Your task to perform on an android device: Open accessibility settings Image 0: 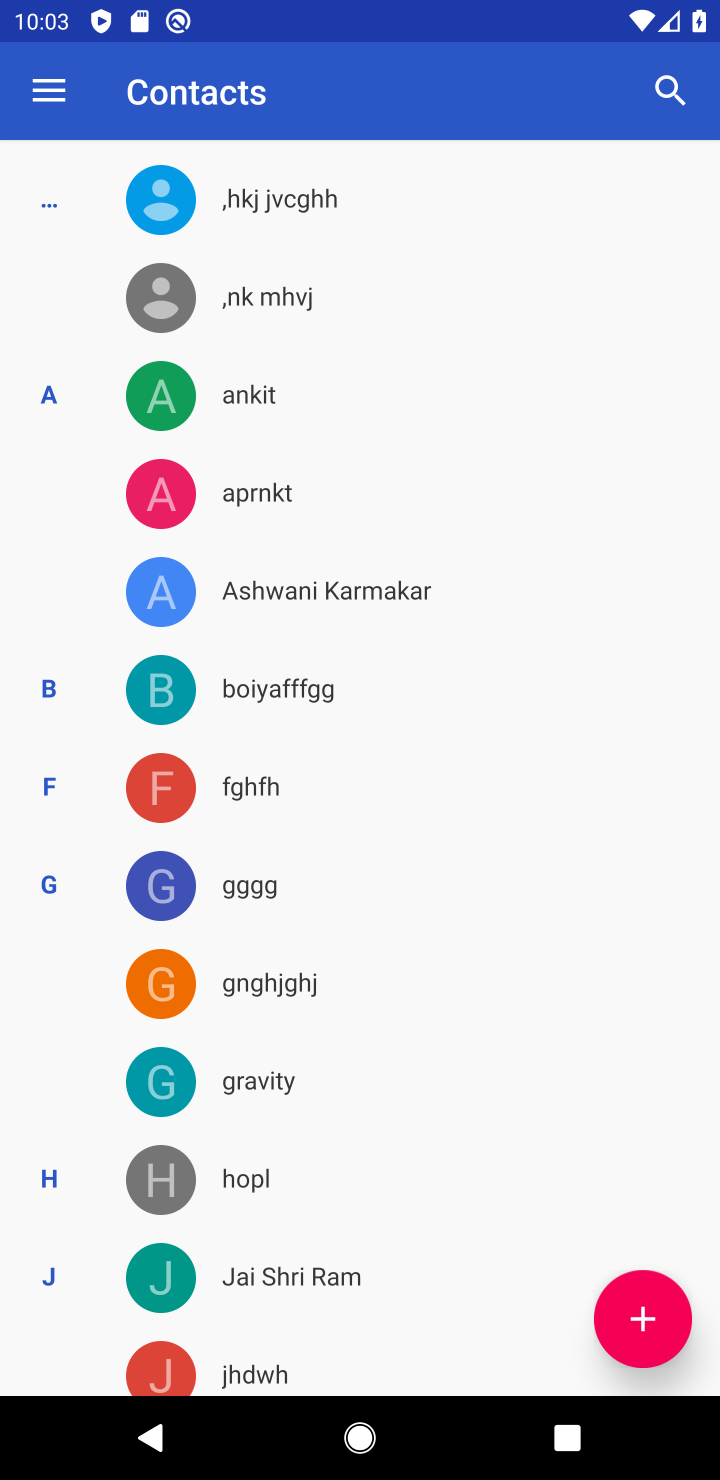
Step 0: press home button
Your task to perform on an android device: Open accessibility settings Image 1: 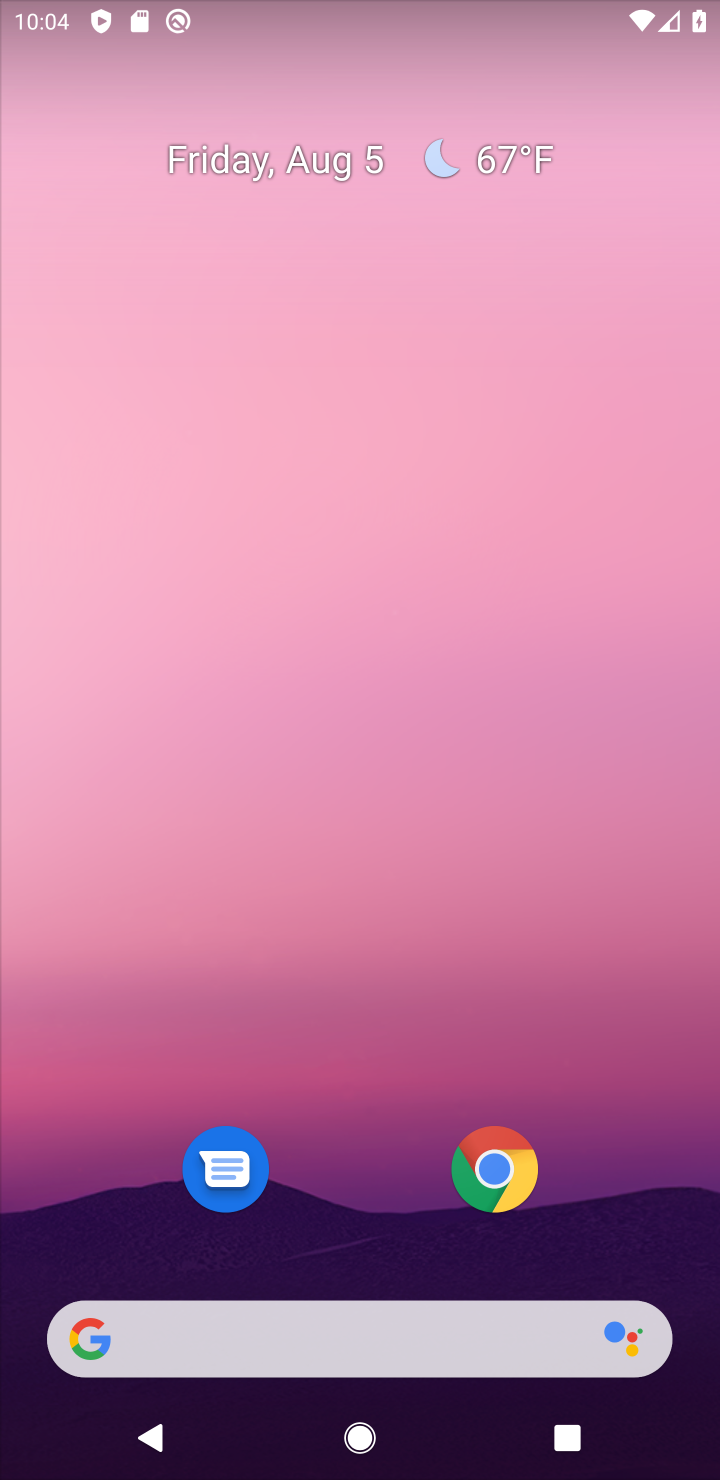
Step 1: drag from (626, 1024) to (606, 649)
Your task to perform on an android device: Open accessibility settings Image 2: 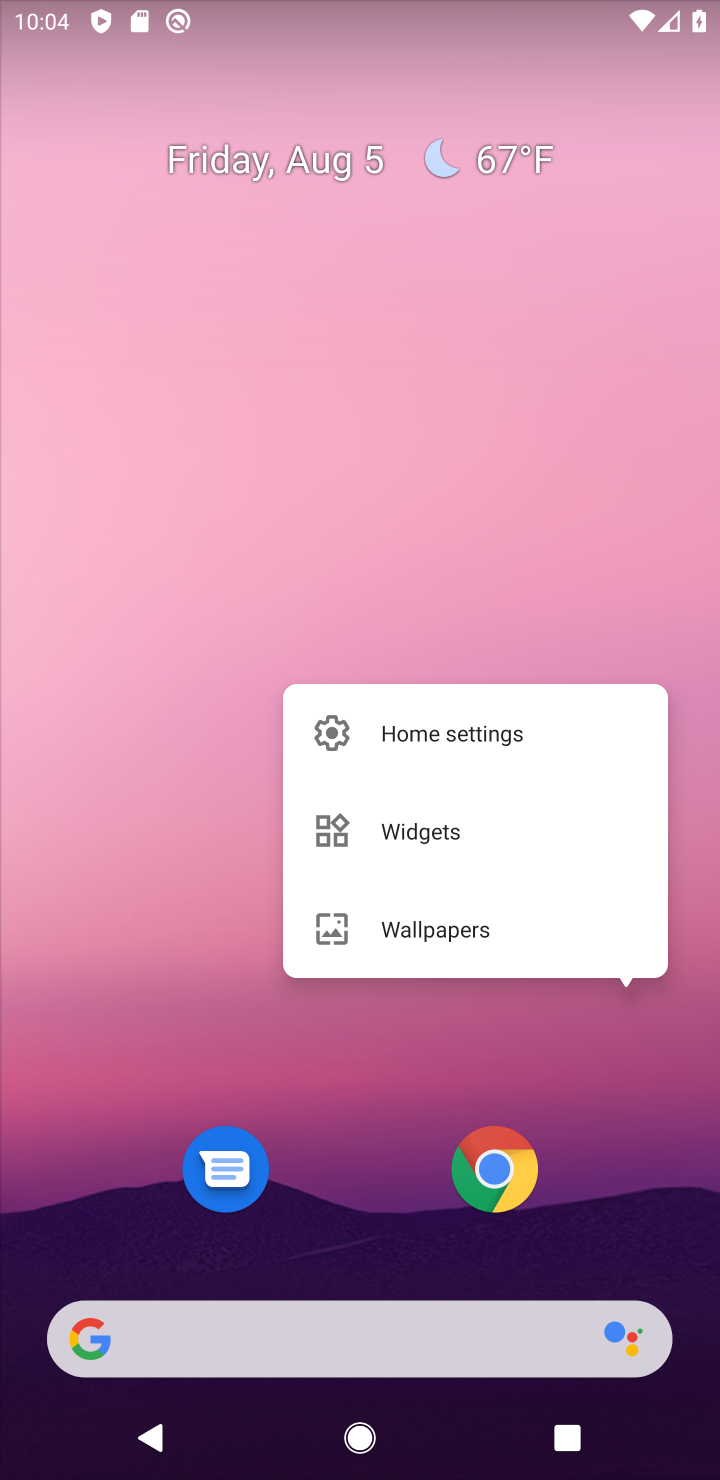
Step 2: drag from (671, 1251) to (567, 398)
Your task to perform on an android device: Open accessibility settings Image 3: 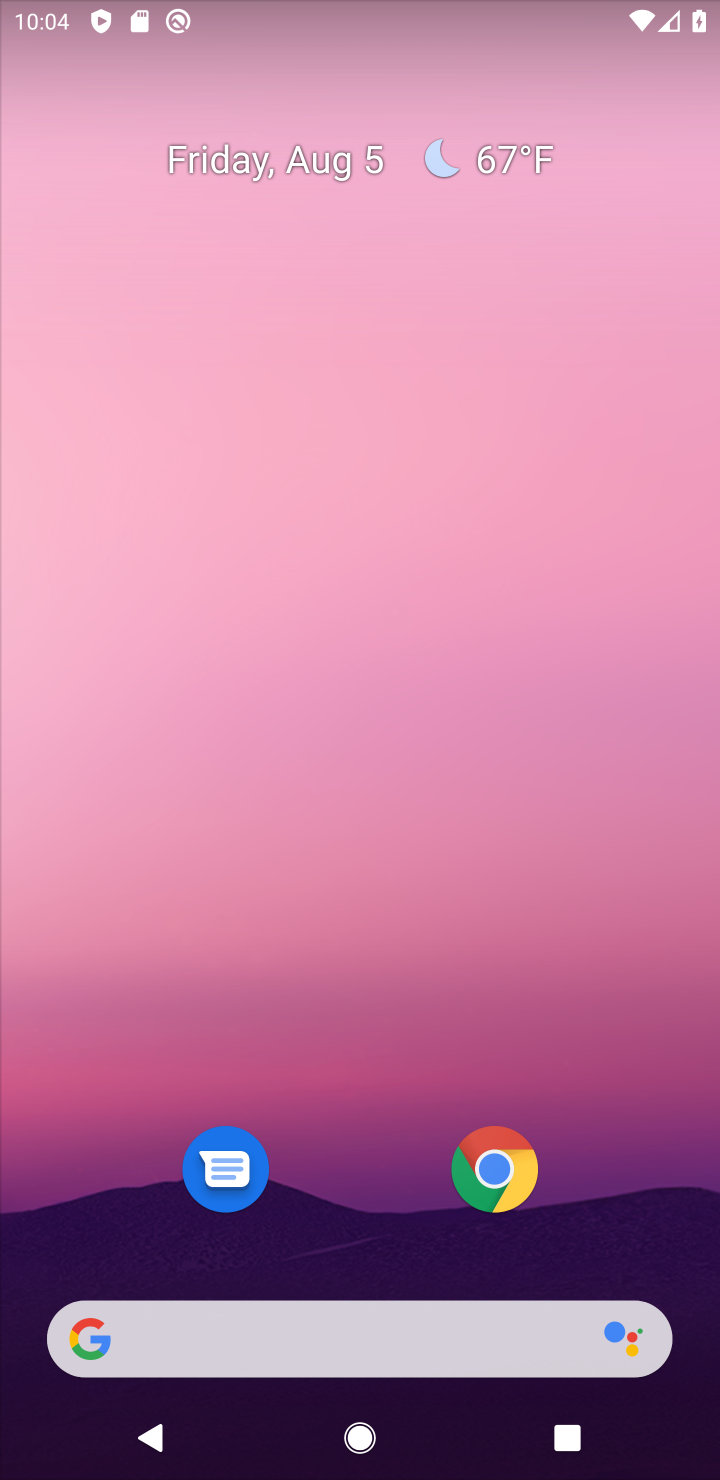
Step 3: drag from (645, 1210) to (619, 367)
Your task to perform on an android device: Open accessibility settings Image 4: 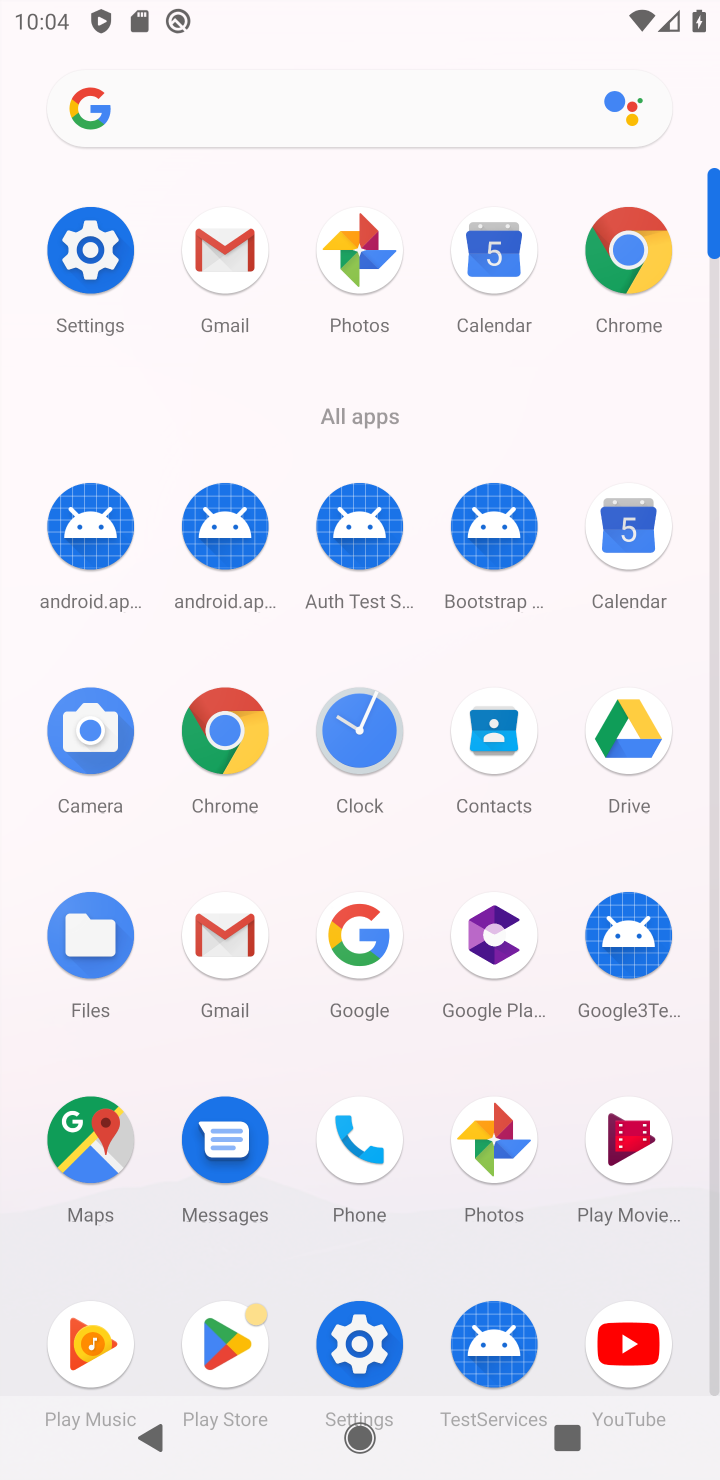
Step 4: click (361, 1345)
Your task to perform on an android device: Open accessibility settings Image 5: 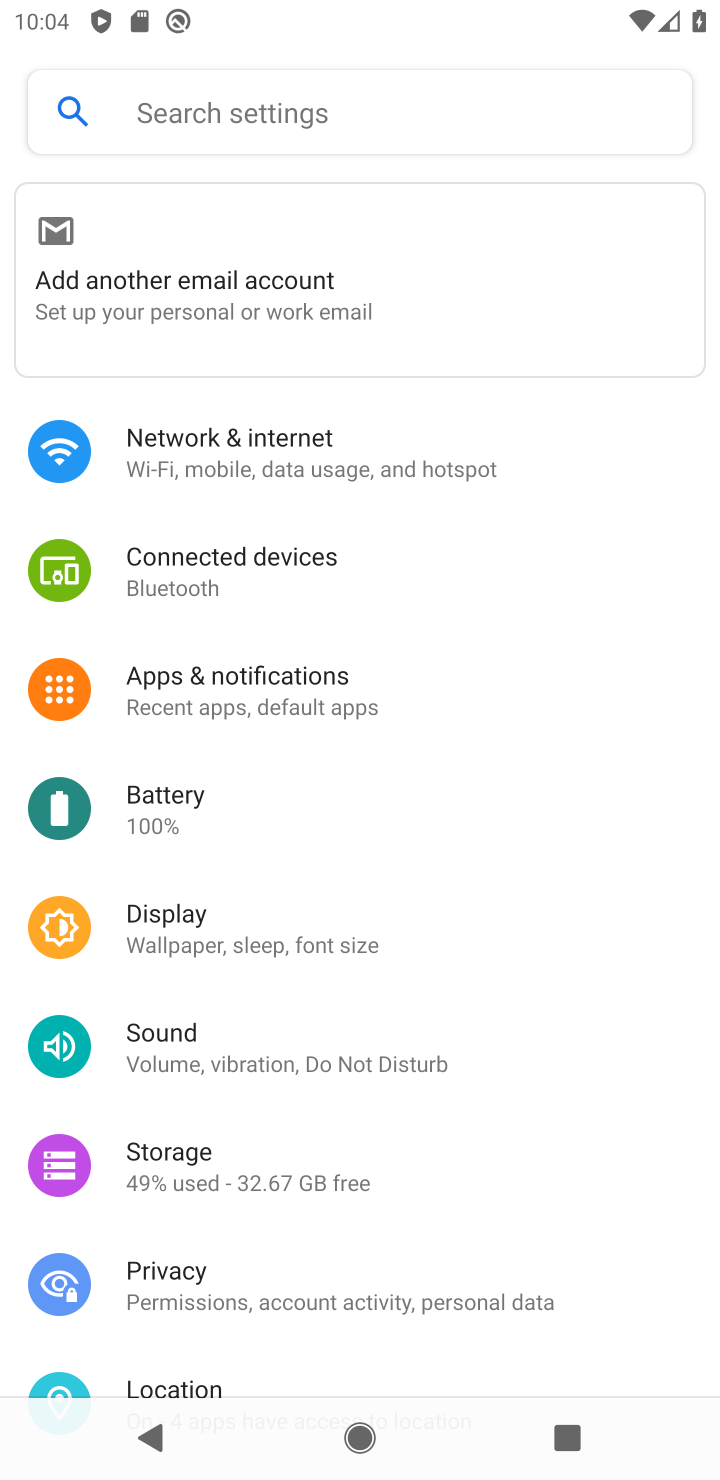
Step 5: drag from (593, 1302) to (555, 729)
Your task to perform on an android device: Open accessibility settings Image 6: 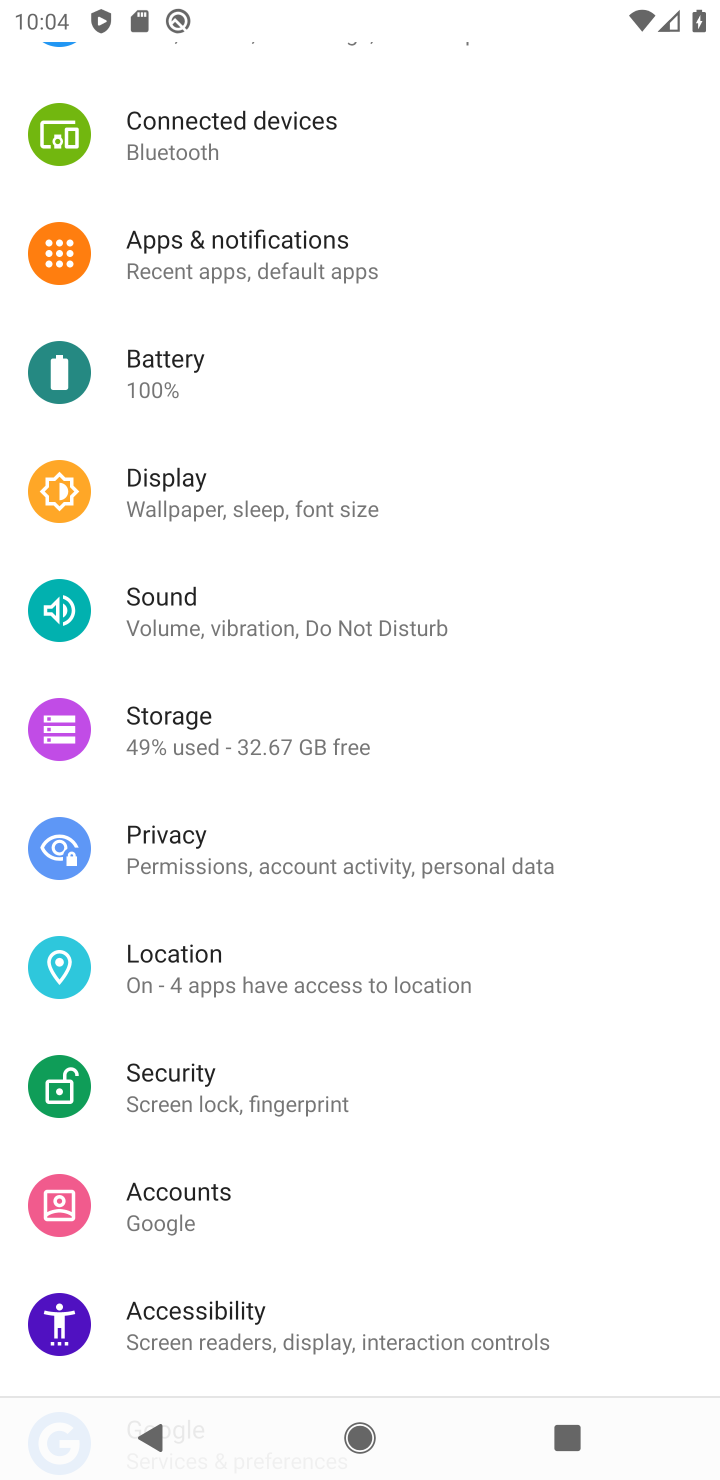
Step 6: drag from (472, 1285) to (516, 644)
Your task to perform on an android device: Open accessibility settings Image 7: 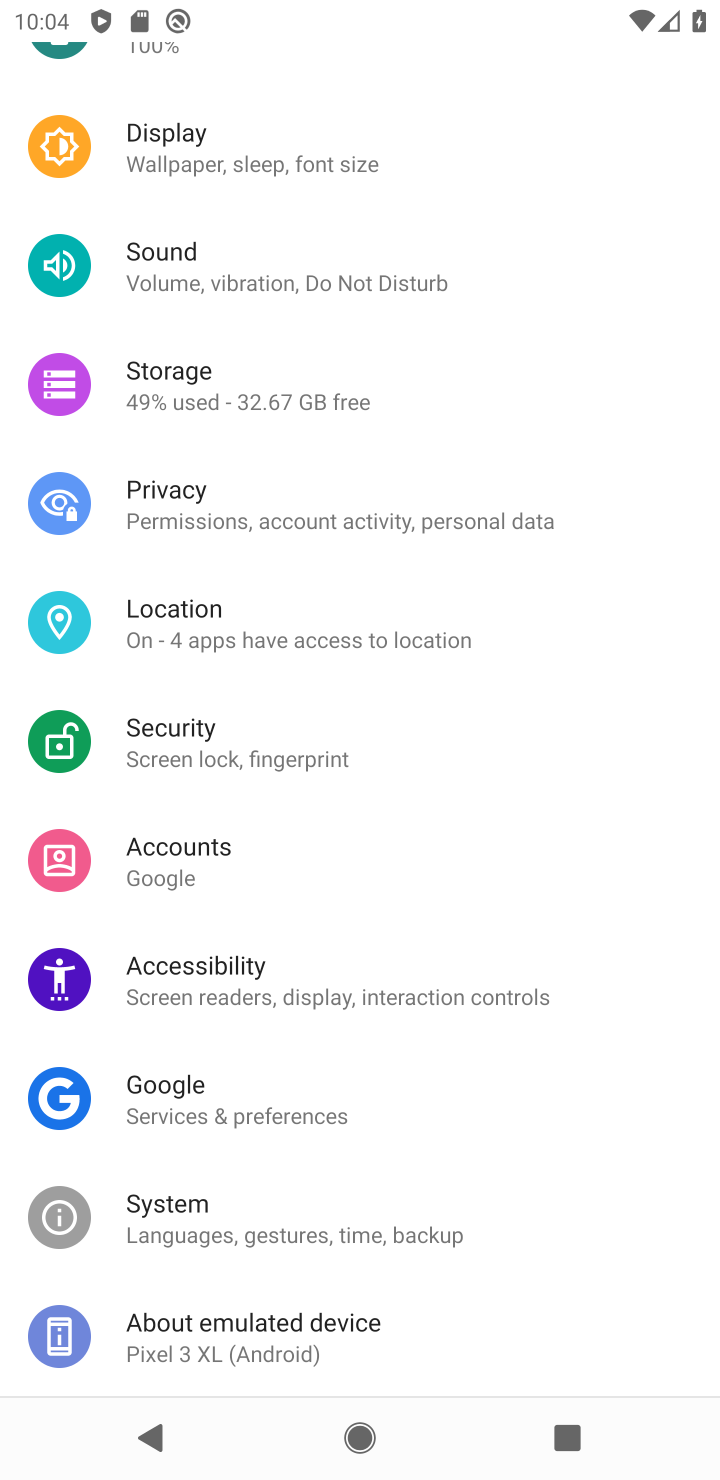
Step 7: click (179, 964)
Your task to perform on an android device: Open accessibility settings Image 8: 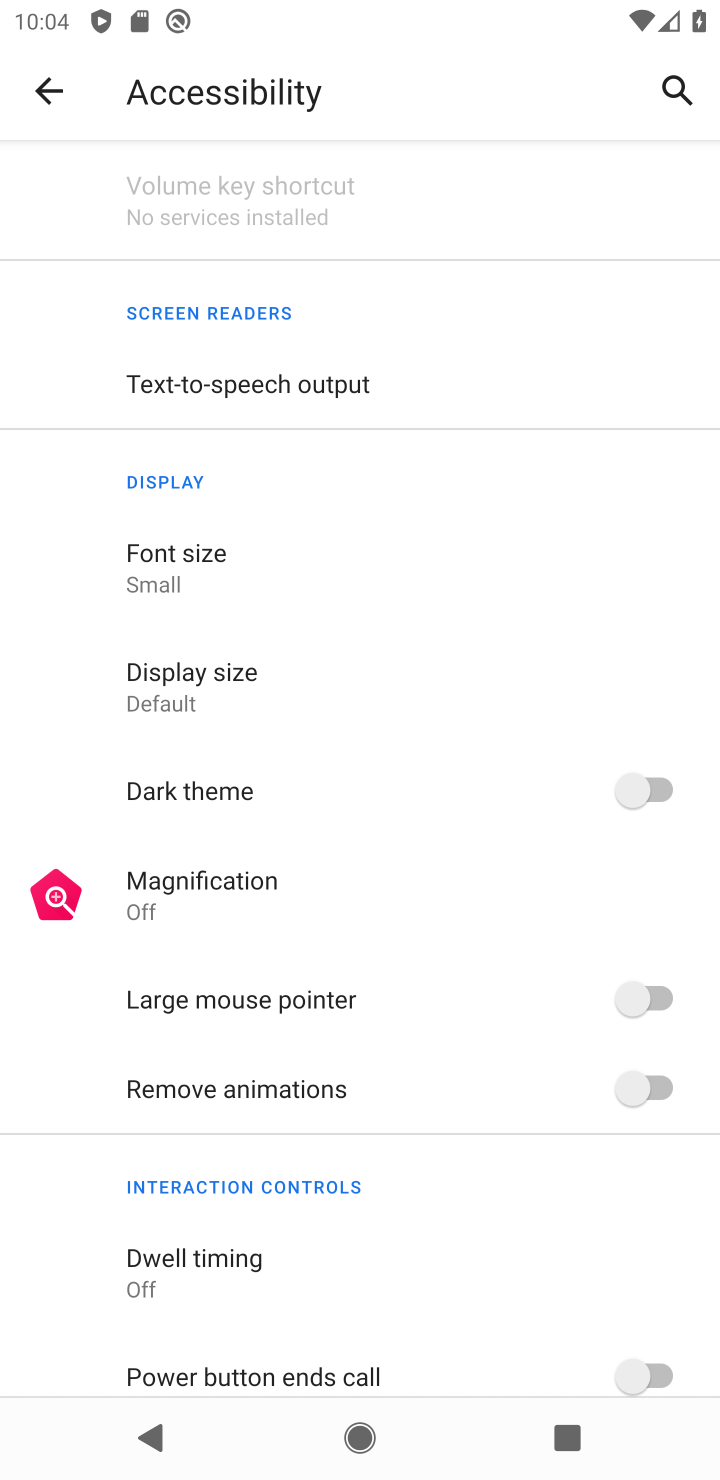
Step 8: task complete